Your task to perform on an android device: turn notification dots off Image 0: 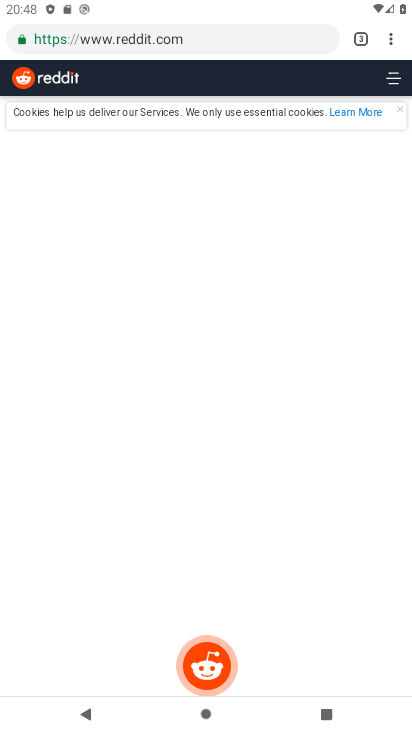
Step 0: press home button
Your task to perform on an android device: turn notification dots off Image 1: 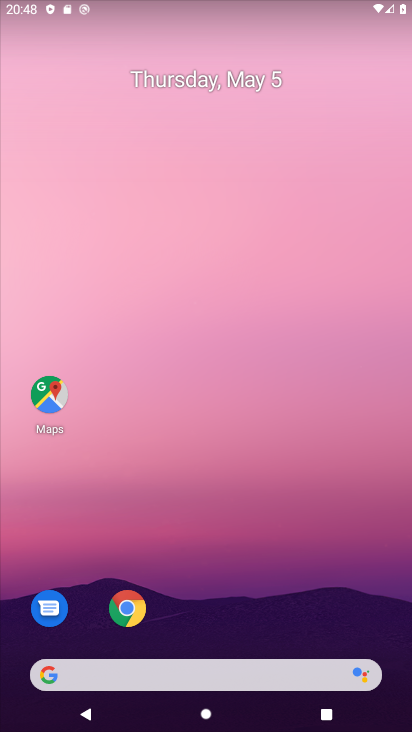
Step 1: drag from (299, 646) to (236, 6)
Your task to perform on an android device: turn notification dots off Image 2: 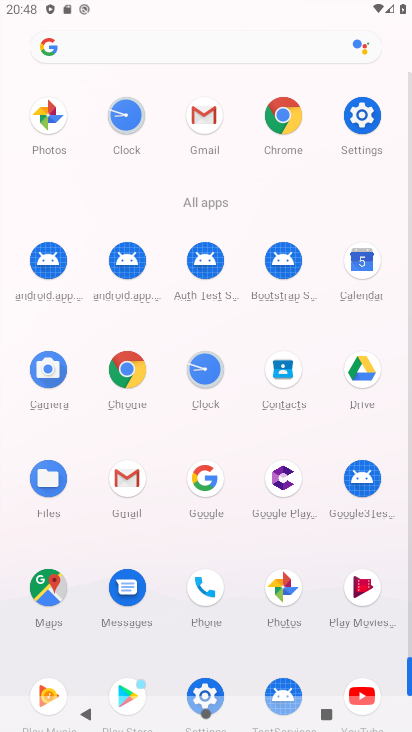
Step 2: click (360, 114)
Your task to perform on an android device: turn notification dots off Image 3: 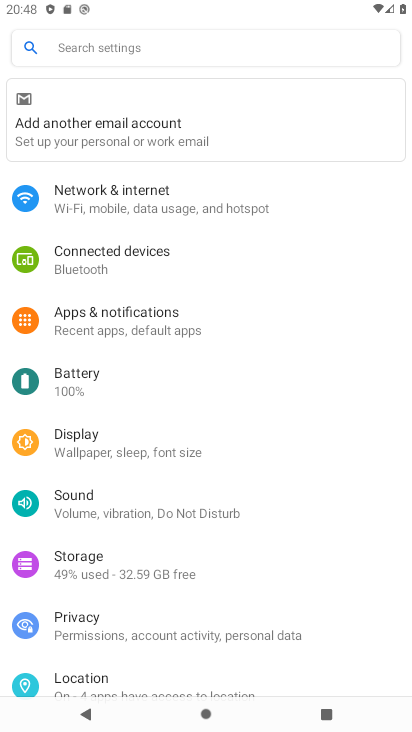
Step 3: click (137, 322)
Your task to perform on an android device: turn notification dots off Image 4: 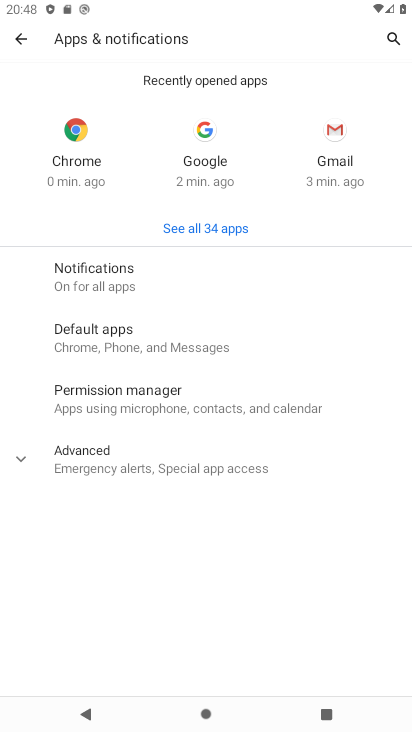
Step 4: click (178, 273)
Your task to perform on an android device: turn notification dots off Image 5: 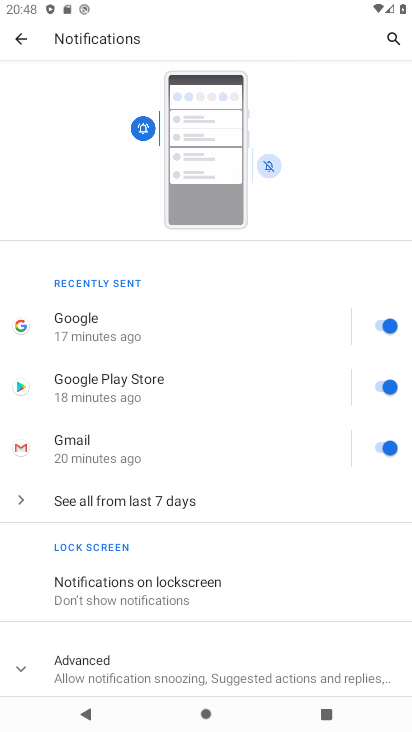
Step 5: click (235, 671)
Your task to perform on an android device: turn notification dots off Image 6: 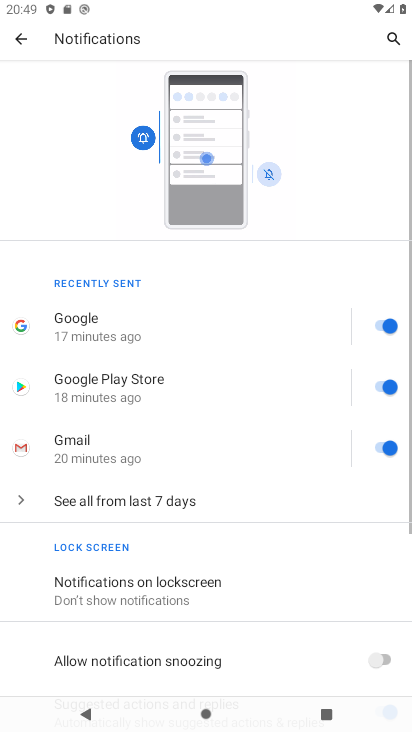
Step 6: drag from (235, 671) to (229, 210)
Your task to perform on an android device: turn notification dots off Image 7: 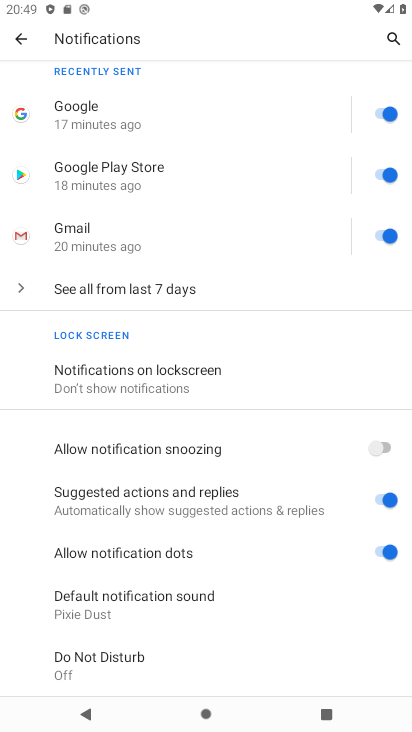
Step 7: click (380, 551)
Your task to perform on an android device: turn notification dots off Image 8: 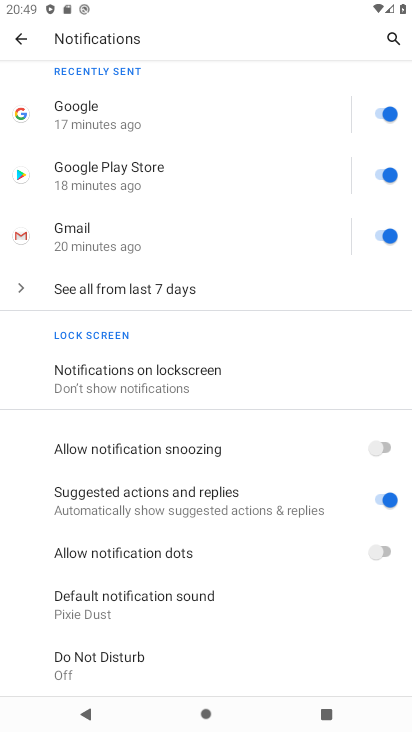
Step 8: task complete